Your task to perform on an android device: Open the web browser Image 0: 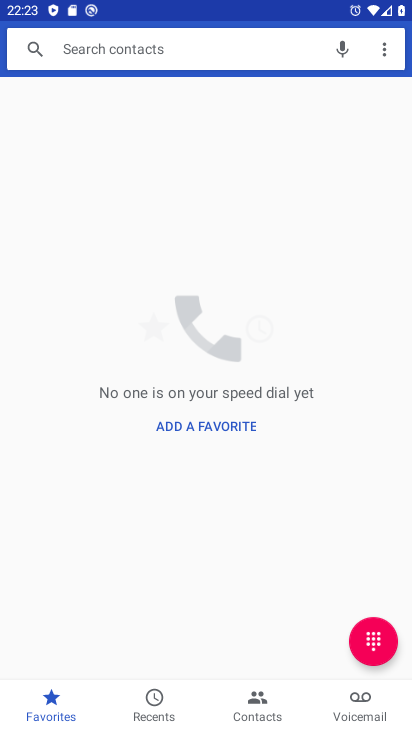
Step 0: press home button
Your task to perform on an android device: Open the web browser Image 1: 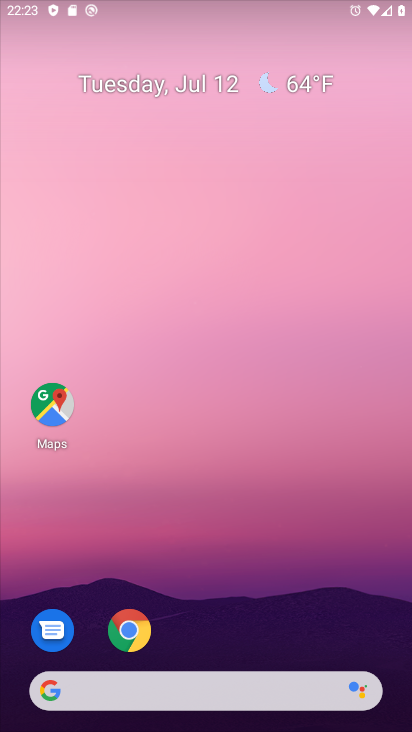
Step 1: drag from (193, 663) to (152, 139)
Your task to perform on an android device: Open the web browser Image 2: 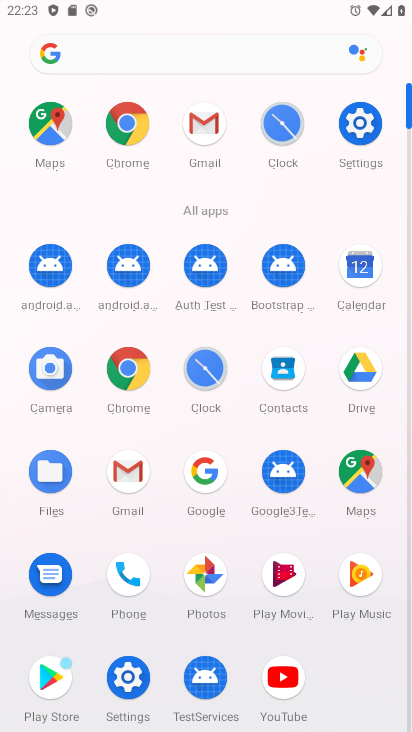
Step 2: click (207, 484)
Your task to perform on an android device: Open the web browser Image 3: 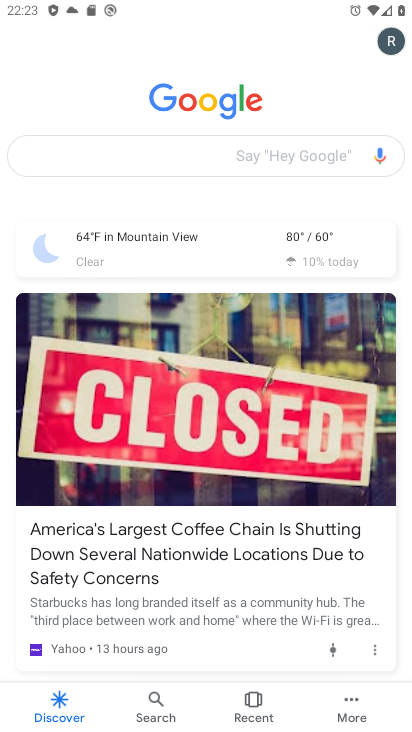
Step 3: click (188, 170)
Your task to perform on an android device: Open the web browser Image 4: 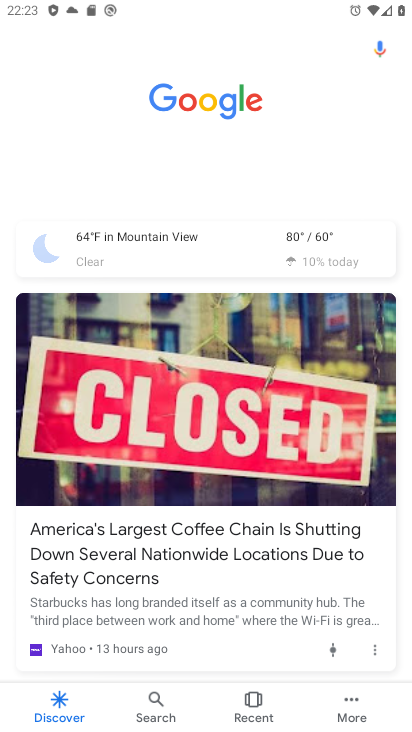
Step 4: task complete